Your task to perform on an android device: Open Google Maps Image 0: 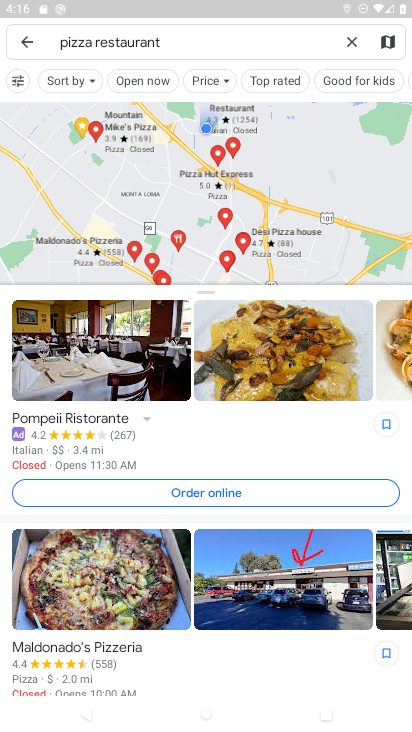
Step 0: press back button
Your task to perform on an android device: Open Google Maps Image 1: 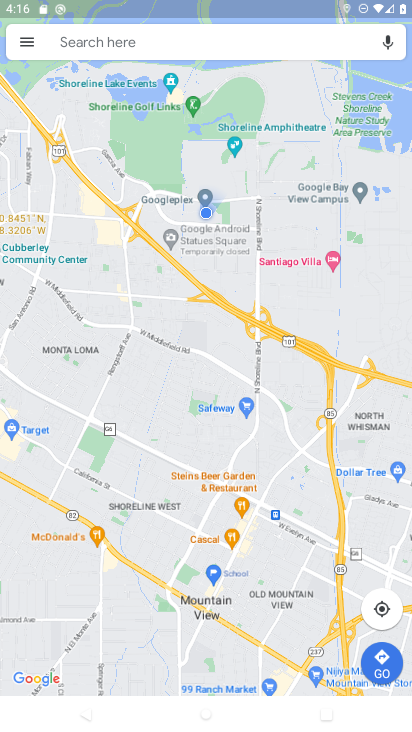
Step 1: task complete